Your task to perform on an android device: turn on the 24-hour format for clock Image 0: 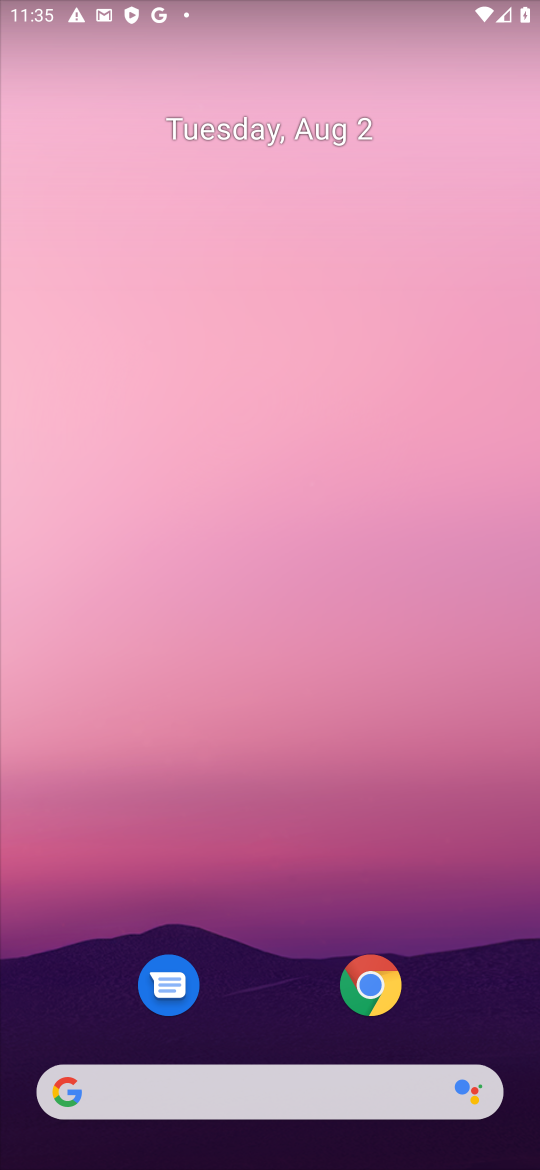
Step 0: drag from (291, 1051) to (237, 178)
Your task to perform on an android device: turn on the 24-hour format for clock Image 1: 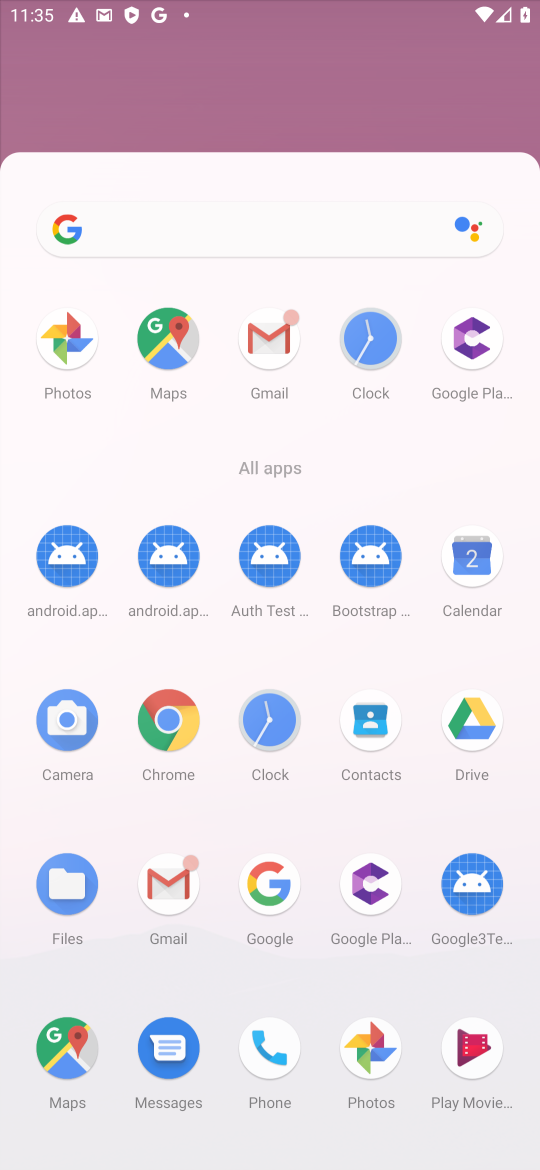
Step 1: drag from (243, 498) to (285, 55)
Your task to perform on an android device: turn on the 24-hour format for clock Image 2: 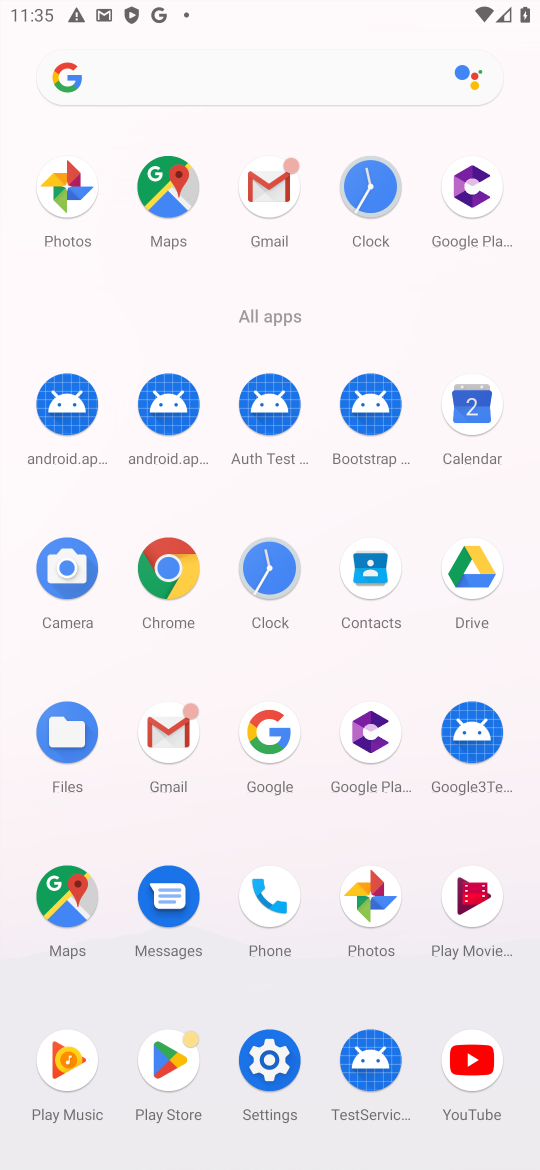
Step 2: drag from (291, 486) to (291, 80)
Your task to perform on an android device: turn on the 24-hour format for clock Image 3: 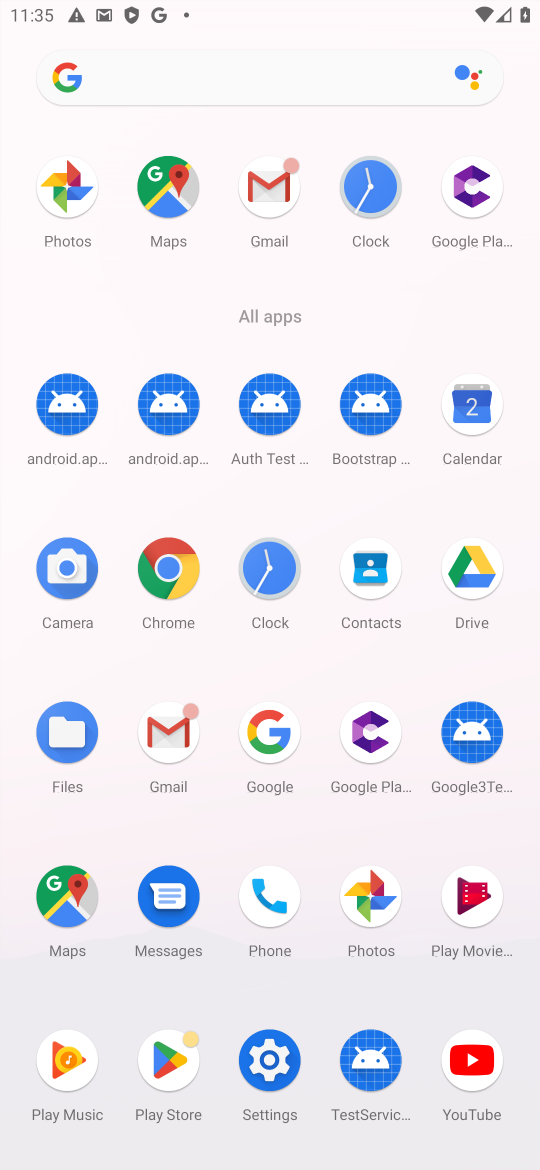
Step 3: click (352, 188)
Your task to perform on an android device: turn on the 24-hour format for clock Image 4: 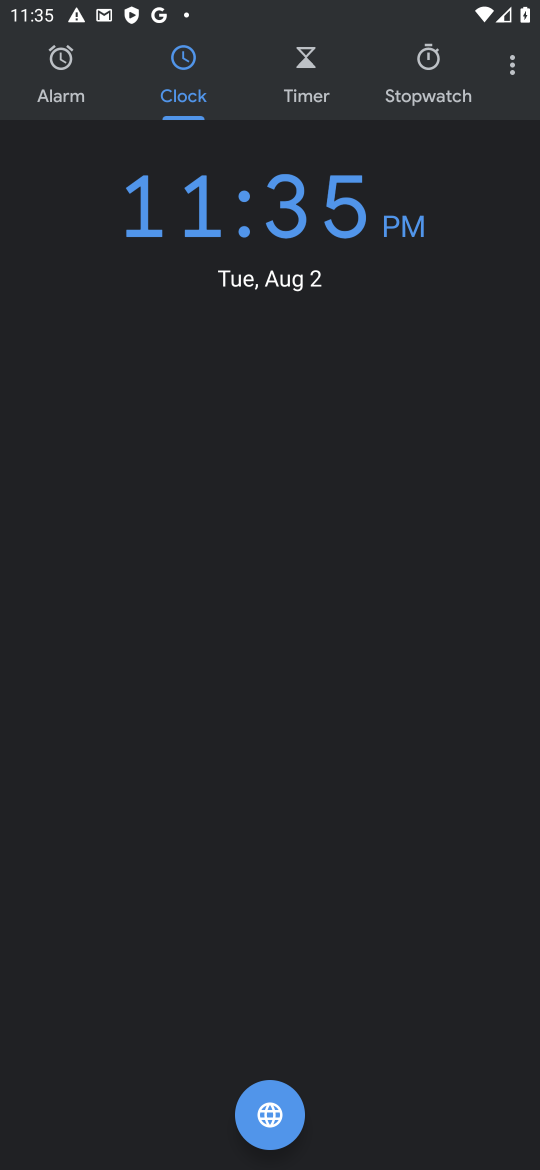
Step 4: click (513, 52)
Your task to perform on an android device: turn on the 24-hour format for clock Image 5: 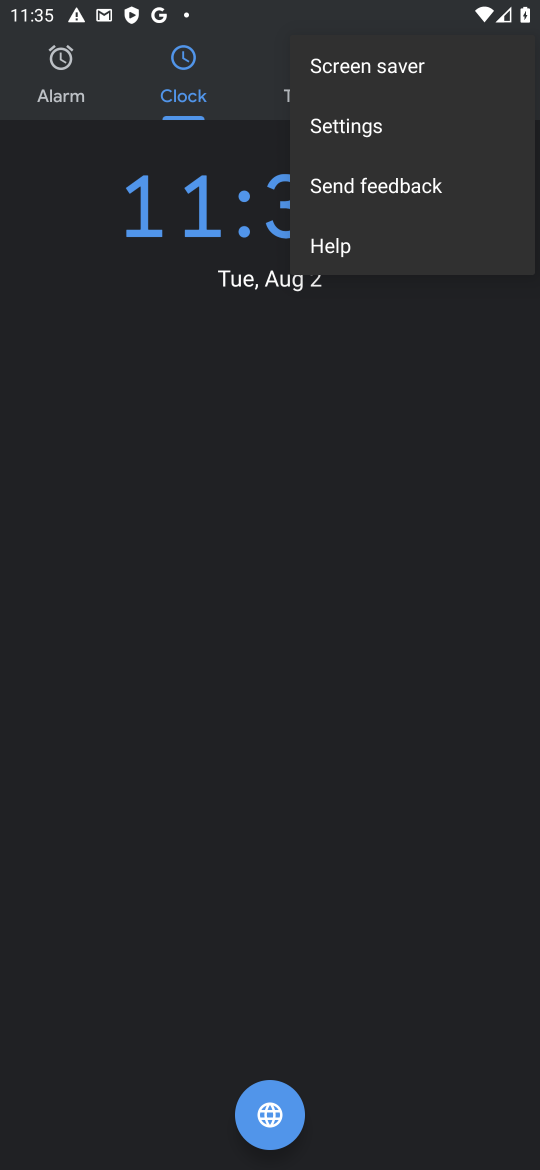
Step 5: click (419, 131)
Your task to perform on an android device: turn on the 24-hour format for clock Image 6: 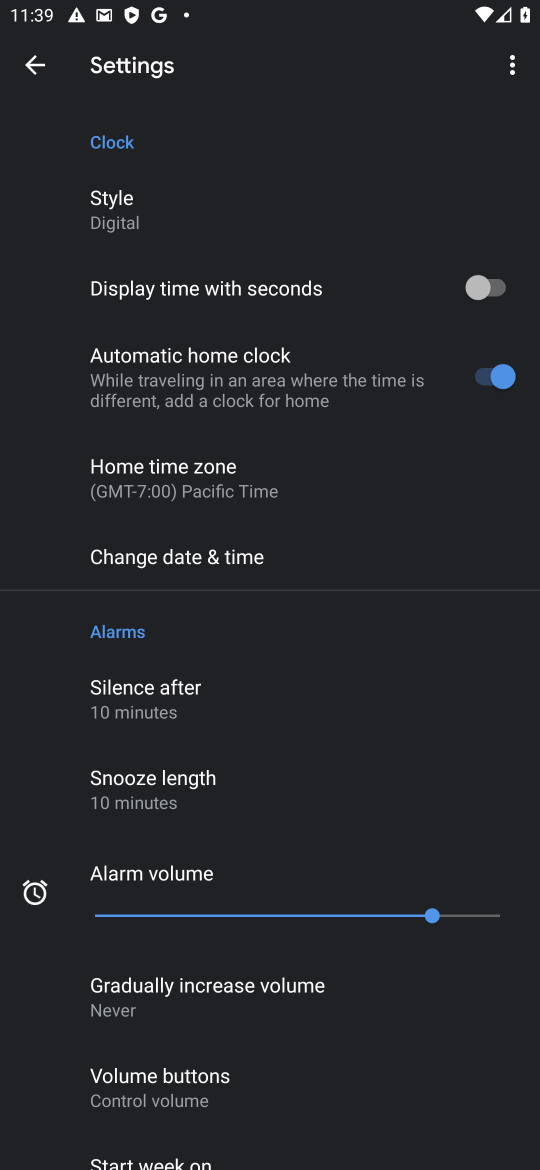
Step 6: task complete